Your task to perform on an android device: Open my contact list Image 0: 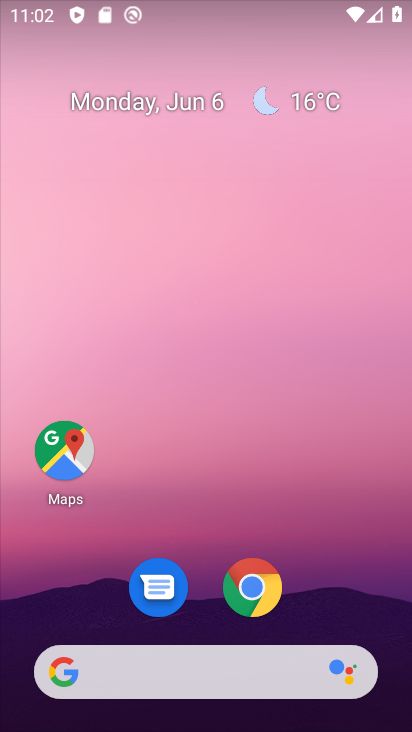
Step 0: drag from (390, 628) to (268, 6)
Your task to perform on an android device: Open my contact list Image 1: 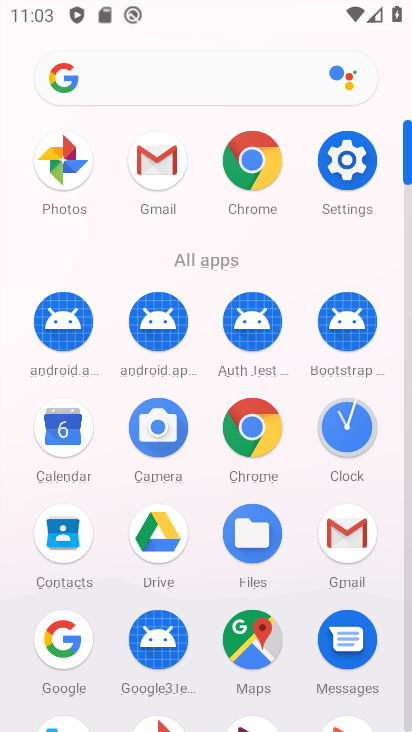
Step 1: click (62, 524)
Your task to perform on an android device: Open my contact list Image 2: 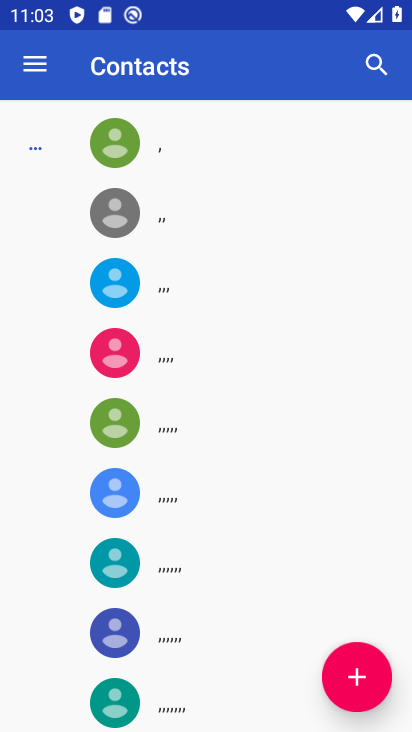
Step 2: task complete